Your task to perform on an android device: toggle data saver in the chrome app Image 0: 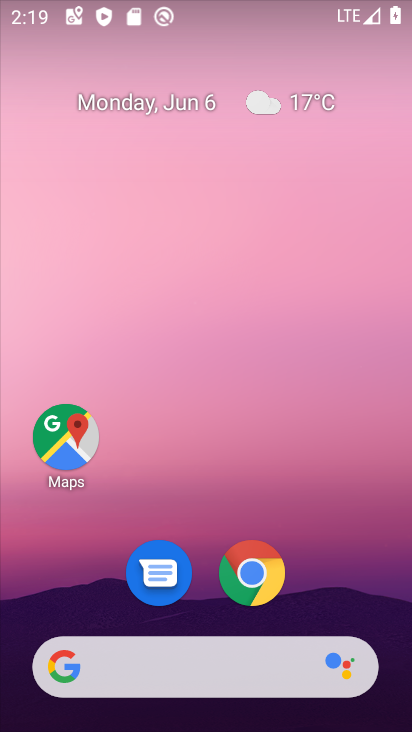
Step 0: drag from (377, 595) to (355, 242)
Your task to perform on an android device: toggle data saver in the chrome app Image 1: 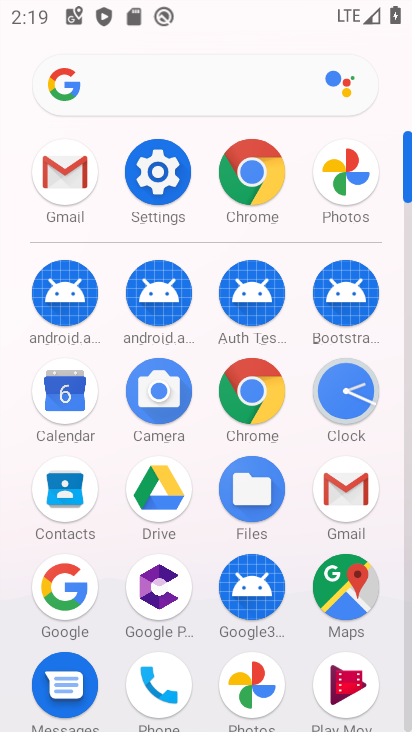
Step 1: click (253, 392)
Your task to perform on an android device: toggle data saver in the chrome app Image 2: 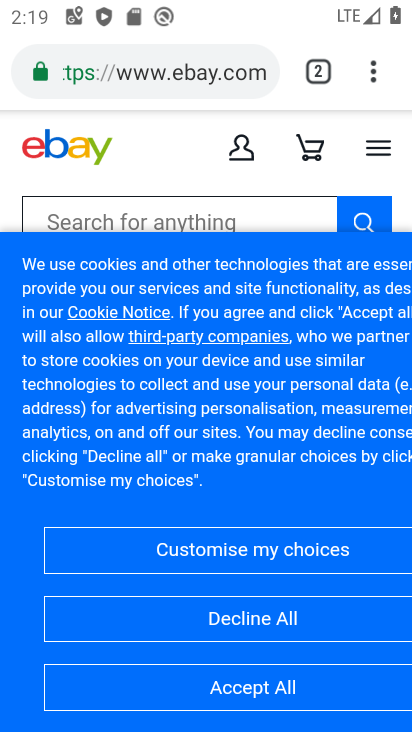
Step 2: click (375, 78)
Your task to perform on an android device: toggle data saver in the chrome app Image 3: 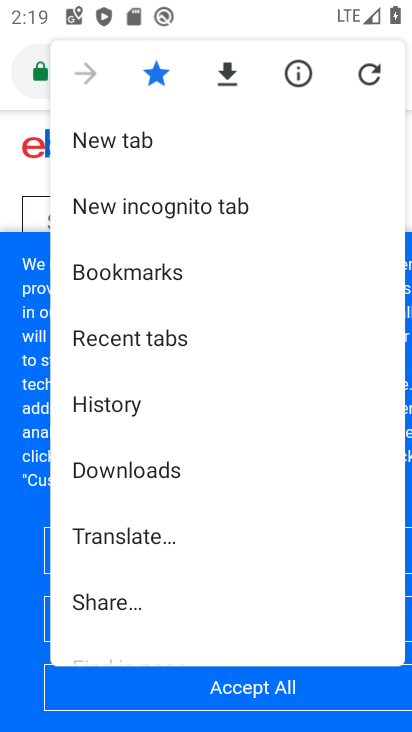
Step 3: drag from (298, 445) to (297, 381)
Your task to perform on an android device: toggle data saver in the chrome app Image 4: 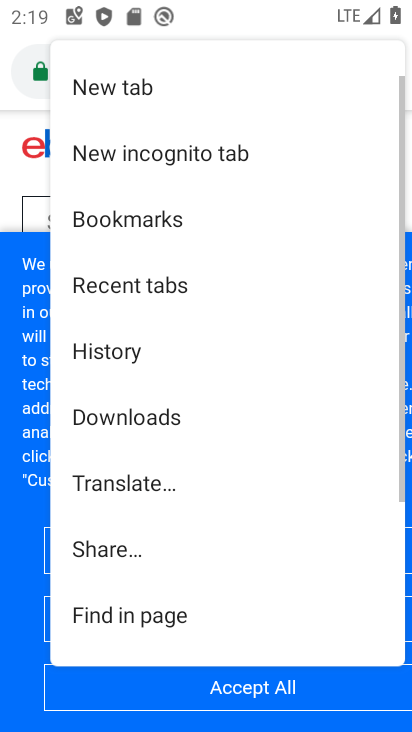
Step 4: drag from (292, 482) to (290, 388)
Your task to perform on an android device: toggle data saver in the chrome app Image 5: 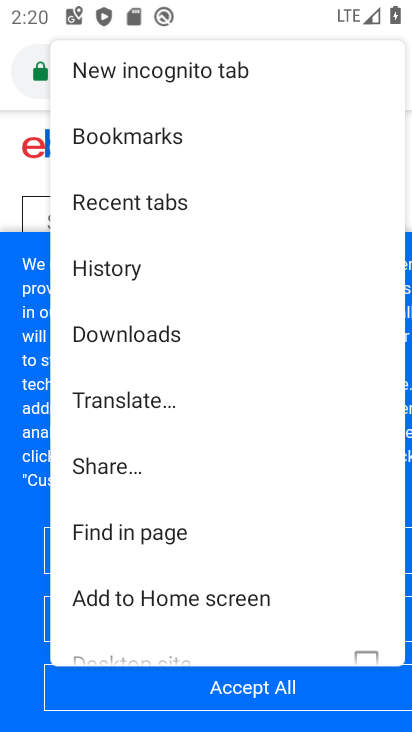
Step 5: drag from (295, 504) to (294, 419)
Your task to perform on an android device: toggle data saver in the chrome app Image 6: 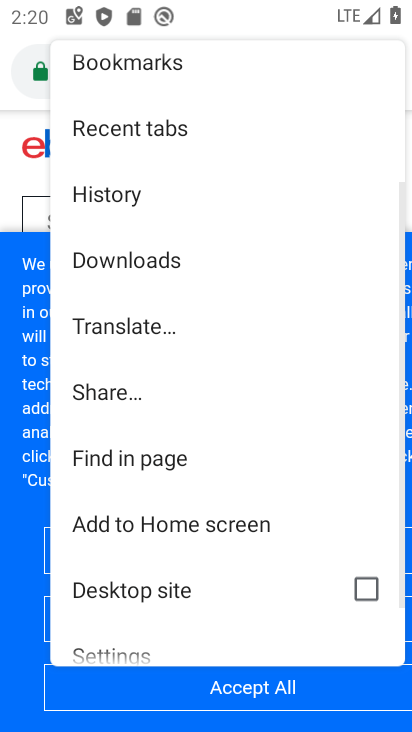
Step 6: drag from (295, 520) to (295, 411)
Your task to perform on an android device: toggle data saver in the chrome app Image 7: 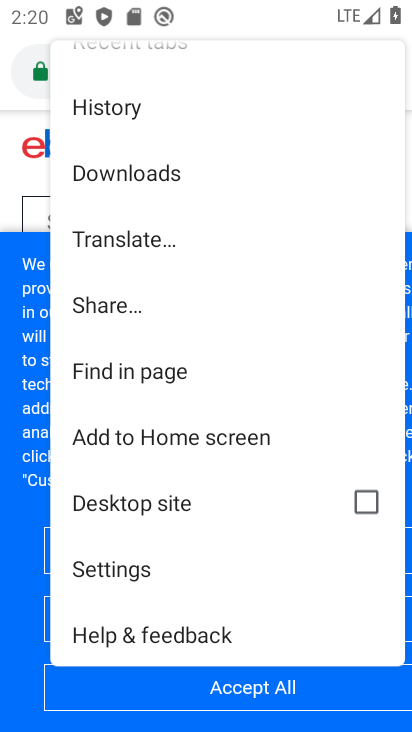
Step 7: click (169, 575)
Your task to perform on an android device: toggle data saver in the chrome app Image 8: 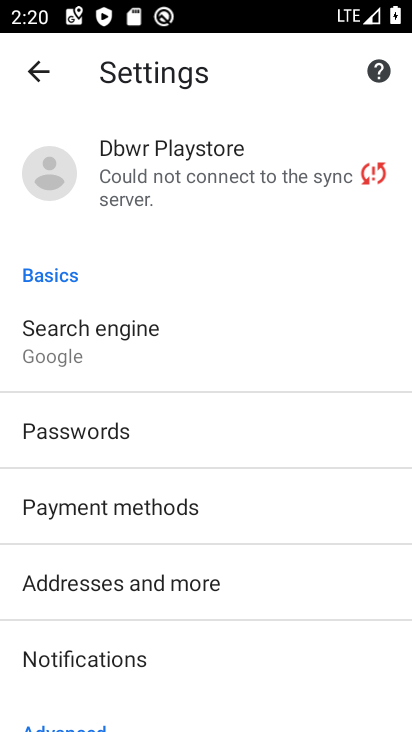
Step 8: drag from (282, 529) to (284, 454)
Your task to perform on an android device: toggle data saver in the chrome app Image 9: 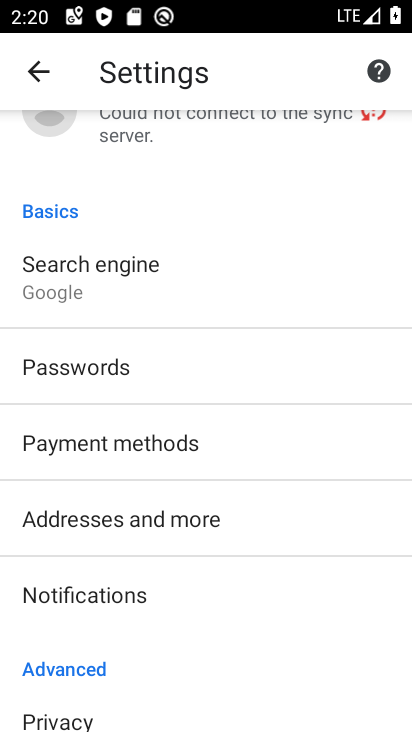
Step 9: drag from (287, 544) to (290, 461)
Your task to perform on an android device: toggle data saver in the chrome app Image 10: 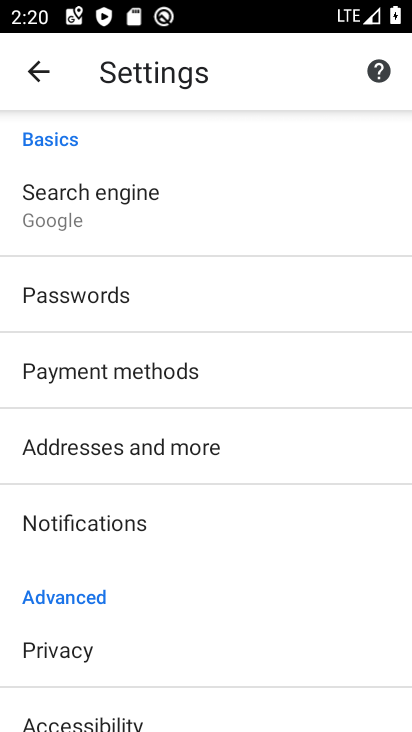
Step 10: drag from (290, 557) to (300, 452)
Your task to perform on an android device: toggle data saver in the chrome app Image 11: 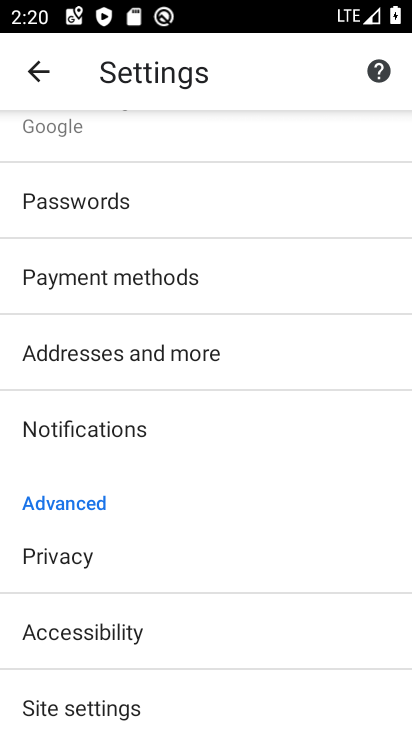
Step 11: drag from (295, 559) to (294, 462)
Your task to perform on an android device: toggle data saver in the chrome app Image 12: 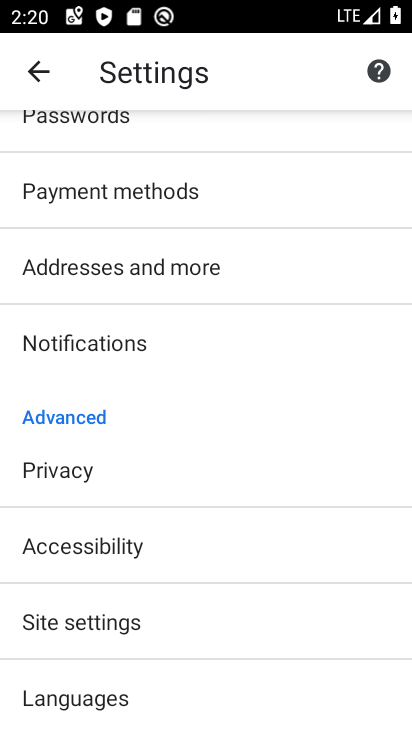
Step 12: drag from (284, 578) to (293, 467)
Your task to perform on an android device: toggle data saver in the chrome app Image 13: 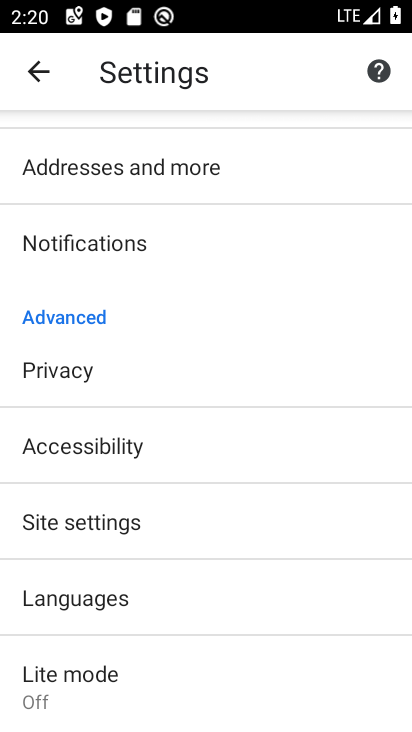
Step 13: drag from (290, 593) to (298, 474)
Your task to perform on an android device: toggle data saver in the chrome app Image 14: 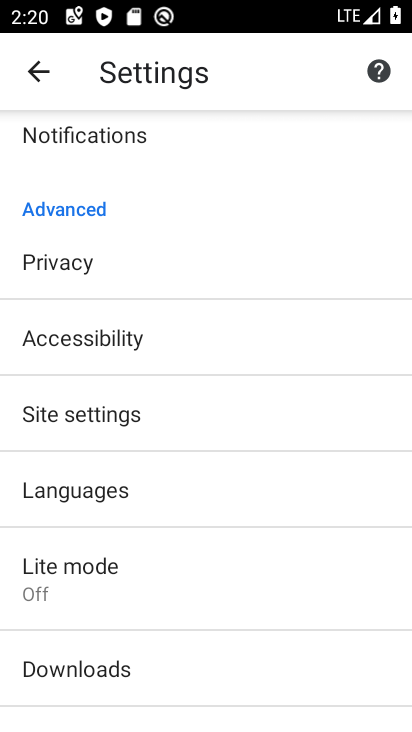
Step 14: click (284, 590)
Your task to perform on an android device: toggle data saver in the chrome app Image 15: 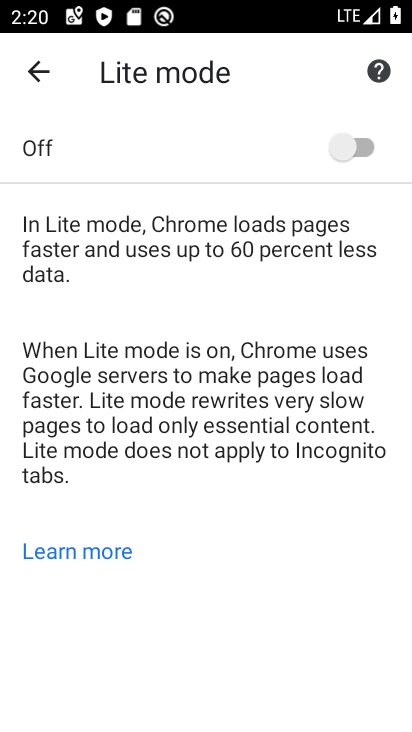
Step 15: click (339, 131)
Your task to perform on an android device: toggle data saver in the chrome app Image 16: 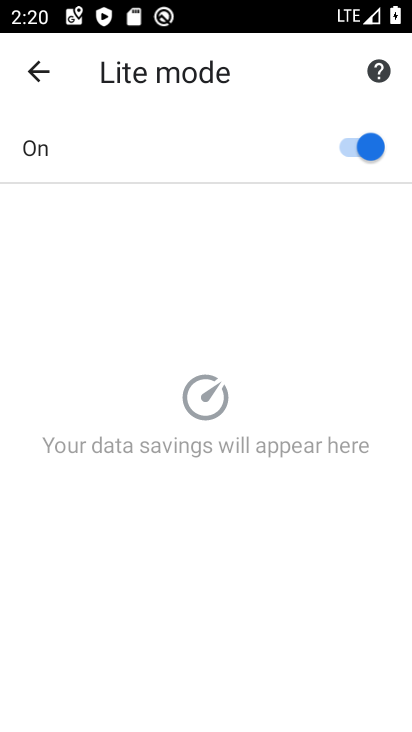
Step 16: task complete